Your task to perform on an android device: Open Google Chrome Image 0: 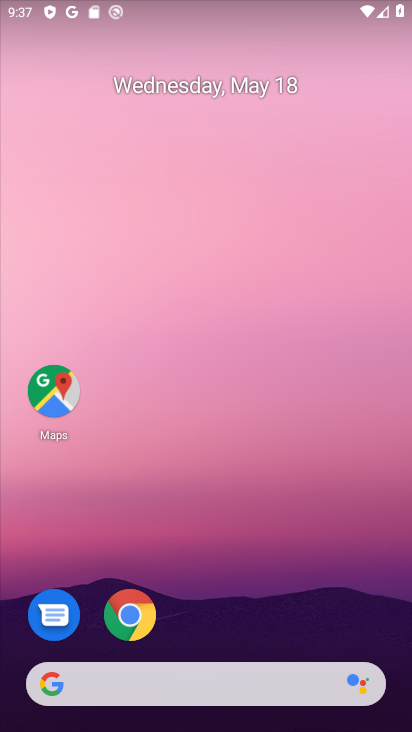
Step 0: click (135, 616)
Your task to perform on an android device: Open Google Chrome Image 1: 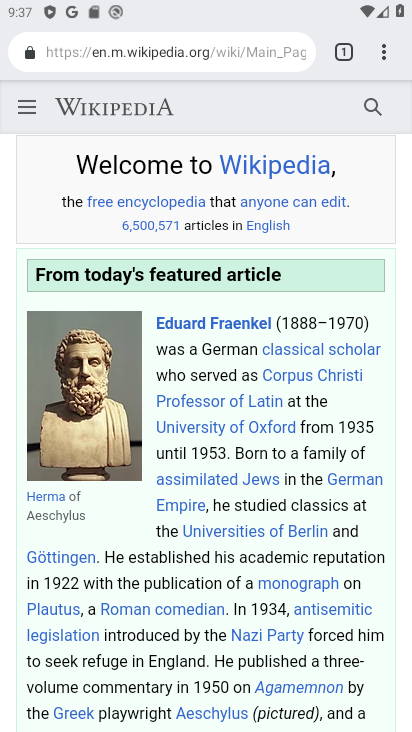
Step 1: task complete